Your task to perform on an android device: Open the calendar app, open the side menu, and click the "Day" option Image 0: 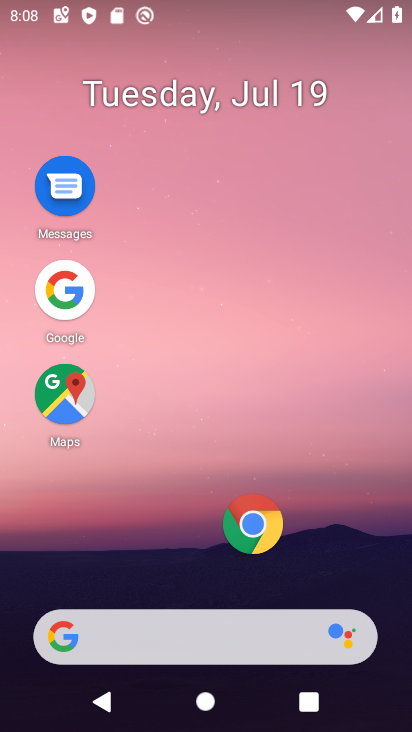
Step 0: drag from (223, 587) to (253, 4)
Your task to perform on an android device: Open the calendar app, open the side menu, and click the "Day" option Image 1: 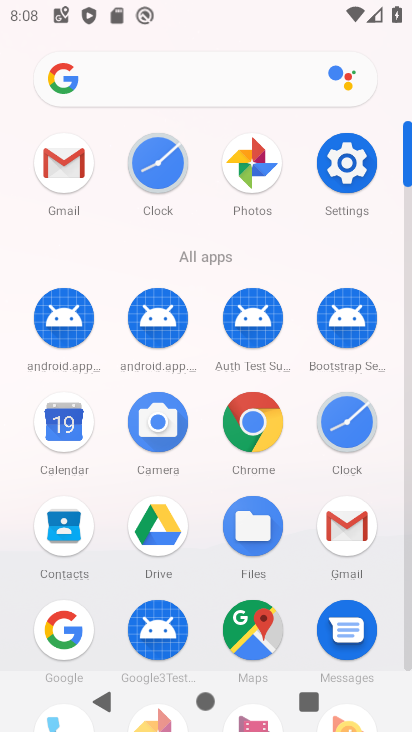
Step 1: click (47, 441)
Your task to perform on an android device: Open the calendar app, open the side menu, and click the "Day" option Image 2: 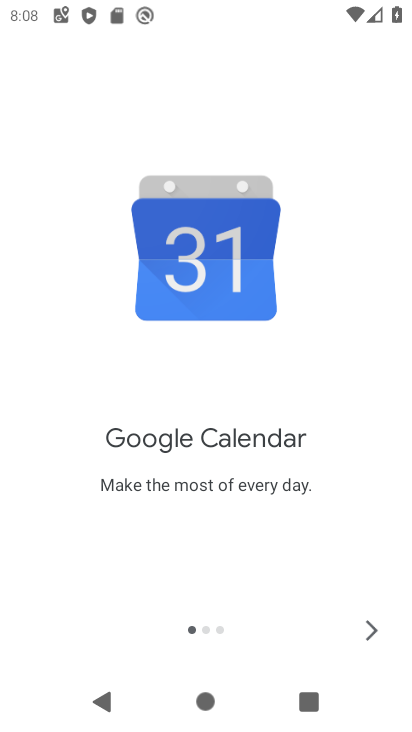
Step 2: click (370, 637)
Your task to perform on an android device: Open the calendar app, open the side menu, and click the "Day" option Image 3: 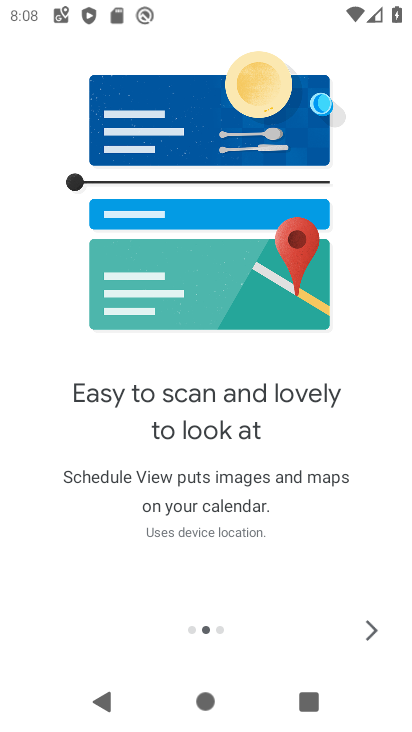
Step 3: click (370, 637)
Your task to perform on an android device: Open the calendar app, open the side menu, and click the "Day" option Image 4: 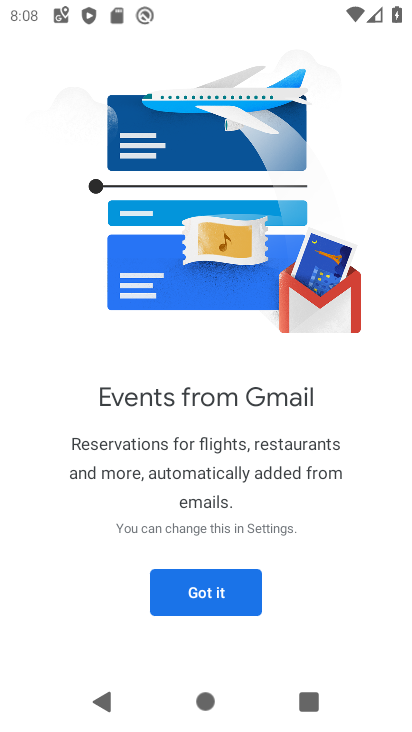
Step 4: click (224, 596)
Your task to perform on an android device: Open the calendar app, open the side menu, and click the "Day" option Image 5: 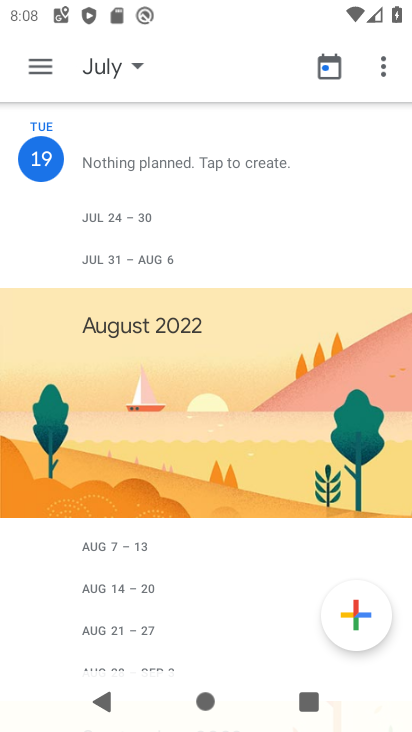
Step 5: click (35, 67)
Your task to perform on an android device: Open the calendar app, open the side menu, and click the "Day" option Image 6: 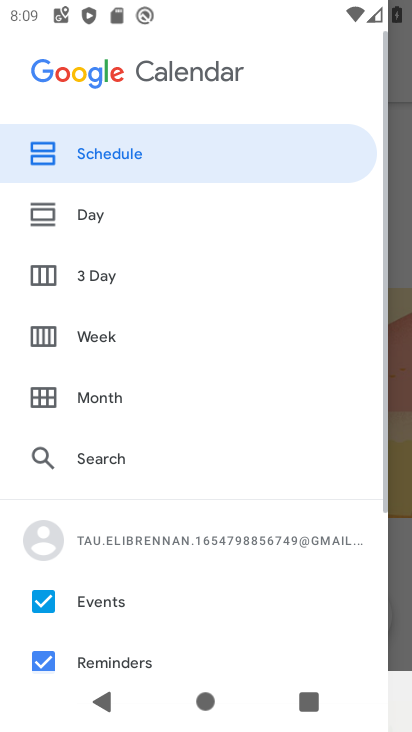
Step 6: click (91, 215)
Your task to perform on an android device: Open the calendar app, open the side menu, and click the "Day" option Image 7: 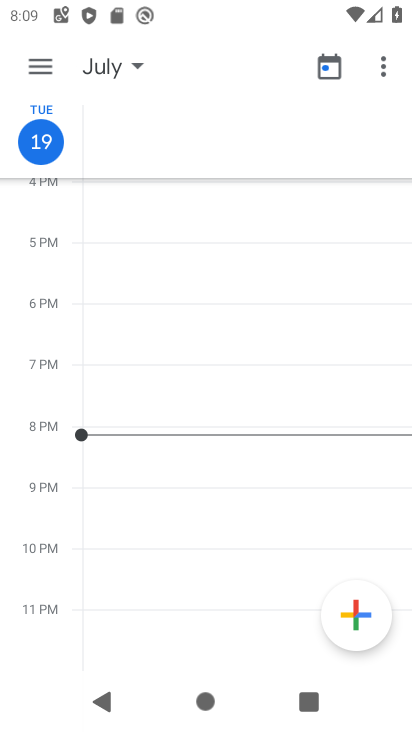
Step 7: task complete